Your task to perform on an android device: Go to eBay Image 0: 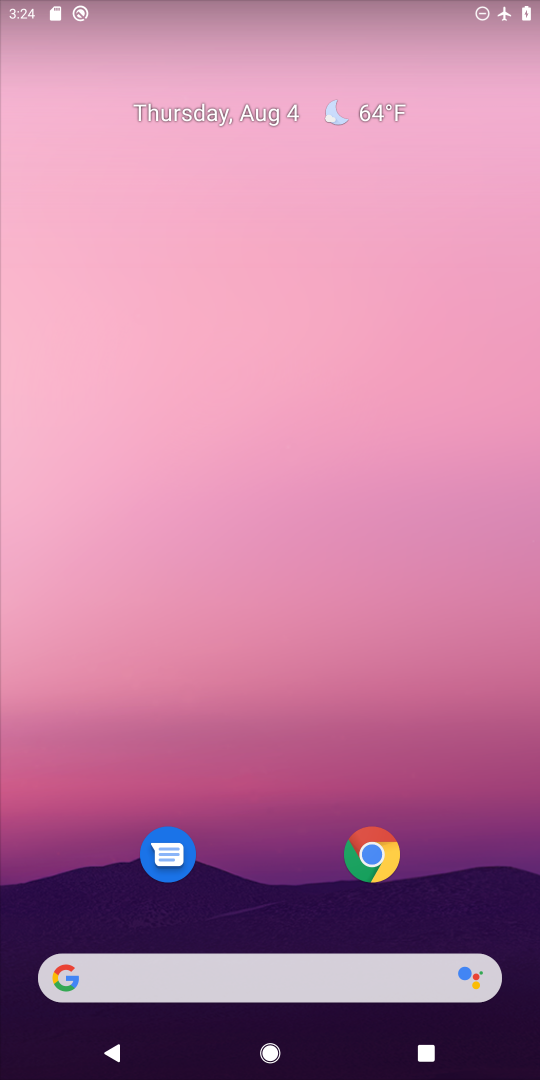
Step 0: click (366, 854)
Your task to perform on an android device: Go to eBay Image 1: 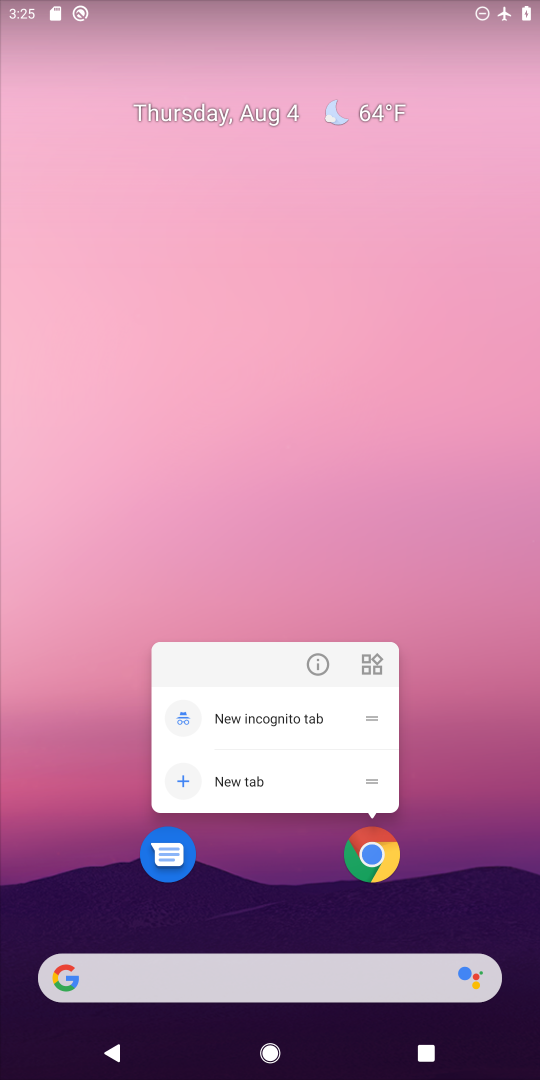
Step 1: click (48, 725)
Your task to perform on an android device: Go to eBay Image 2: 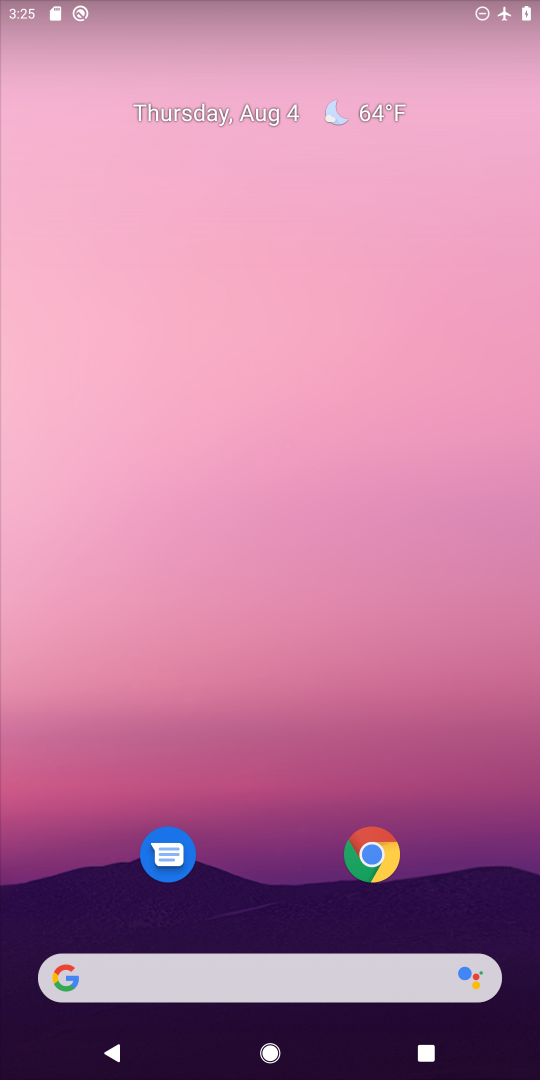
Step 2: drag from (299, 791) to (339, 242)
Your task to perform on an android device: Go to eBay Image 3: 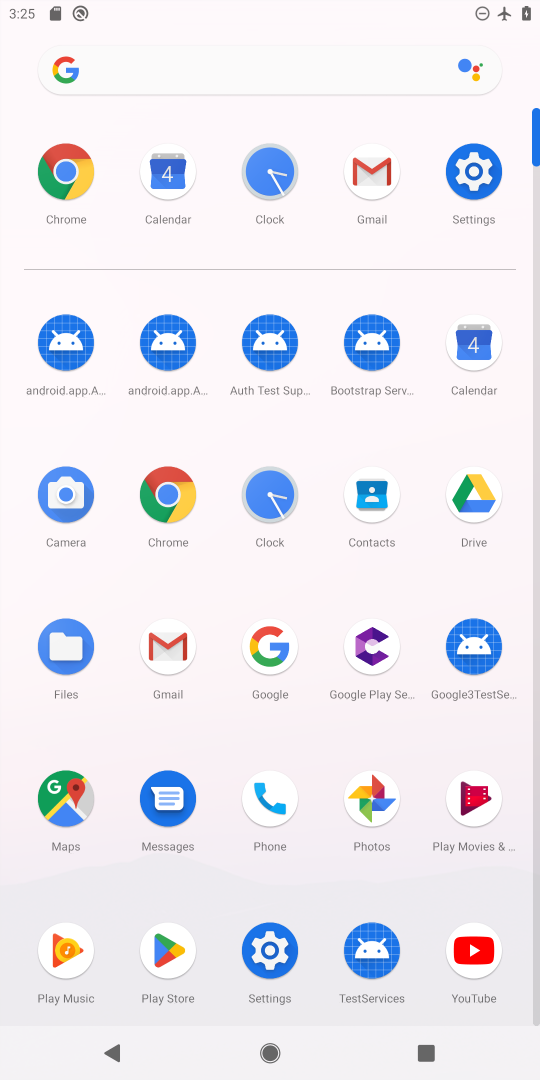
Step 3: click (149, 503)
Your task to perform on an android device: Go to eBay Image 4: 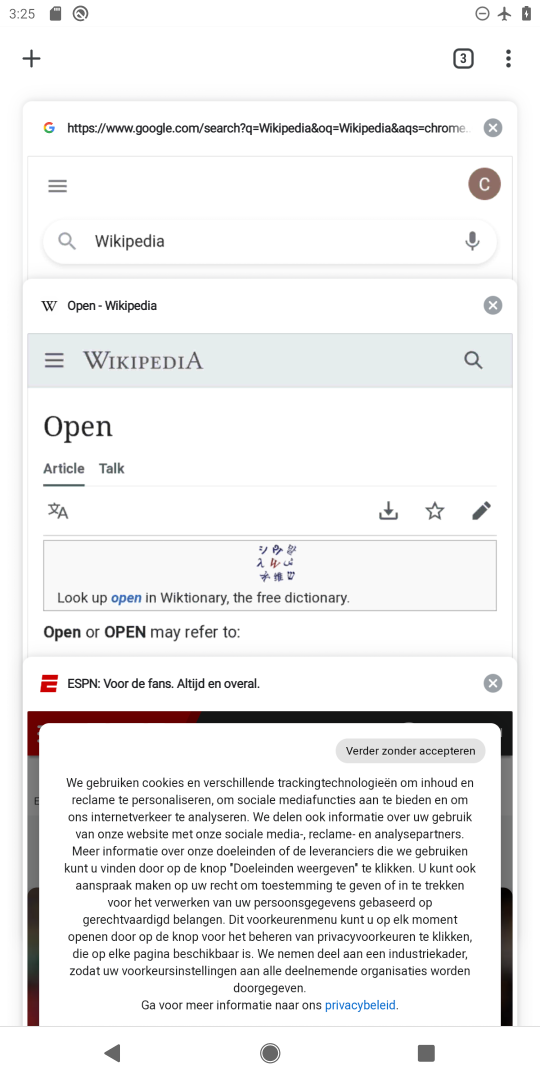
Step 4: task complete